Your task to perform on an android device: change the clock display to digital Image 0: 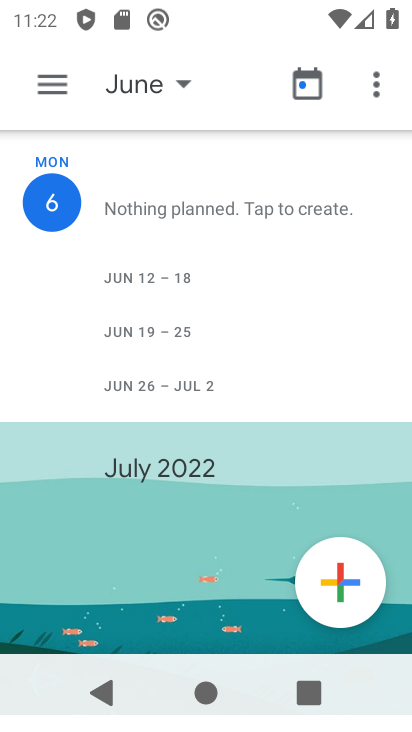
Step 0: press home button
Your task to perform on an android device: change the clock display to digital Image 1: 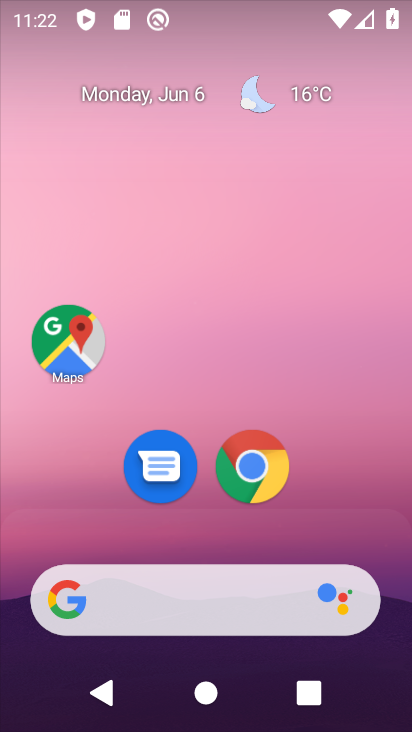
Step 1: drag from (327, 643) to (313, 100)
Your task to perform on an android device: change the clock display to digital Image 2: 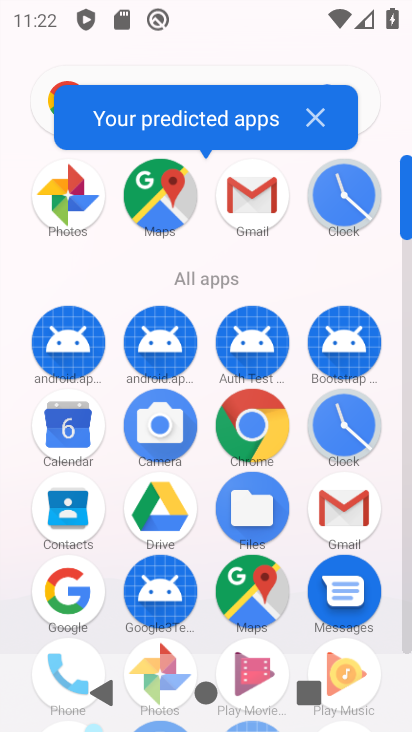
Step 2: click (351, 427)
Your task to perform on an android device: change the clock display to digital Image 3: 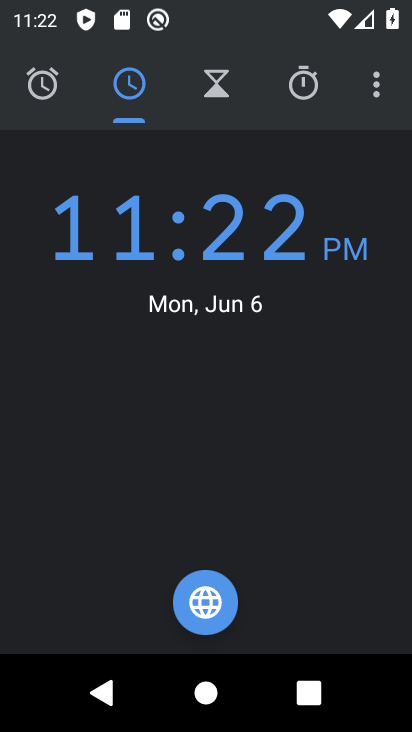
Step 3: click (374, 74)
Your task to perform on an android device: change the clock display to digital Image 4: 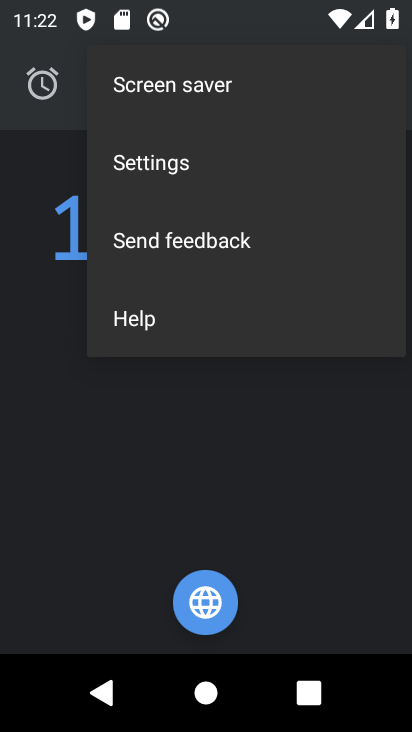
Step 4: click (186, 164)
Your task to perform on an android device: change the clock display to digital Image 5: 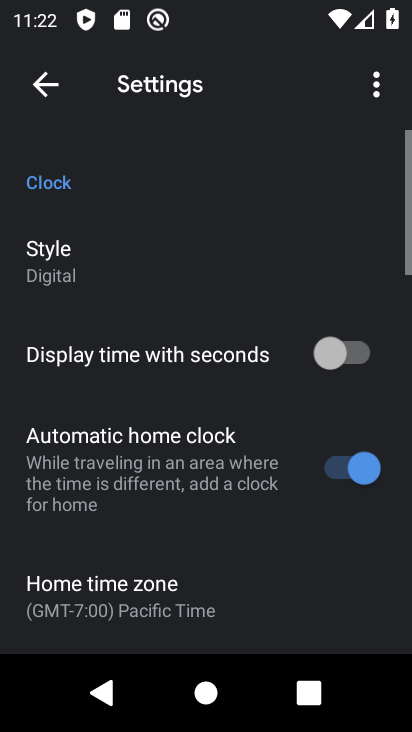
Step 5: click (118, 265)
Your task to perform on an android device: change the clock display to digital Image 6: 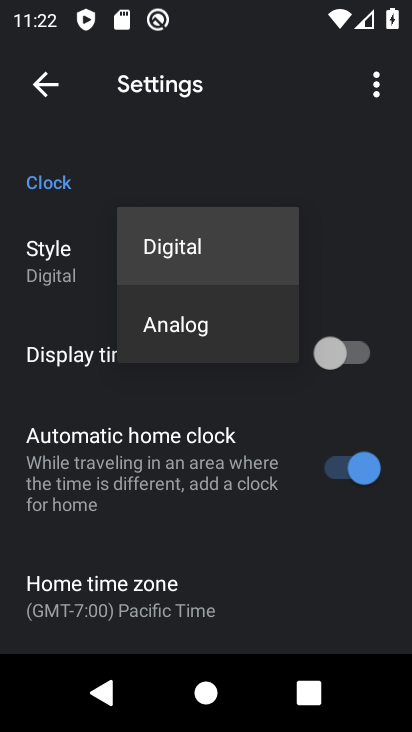
Step 6: click (266, 257)
Your task to perform on an android device: change the clock display to digital Image 7: 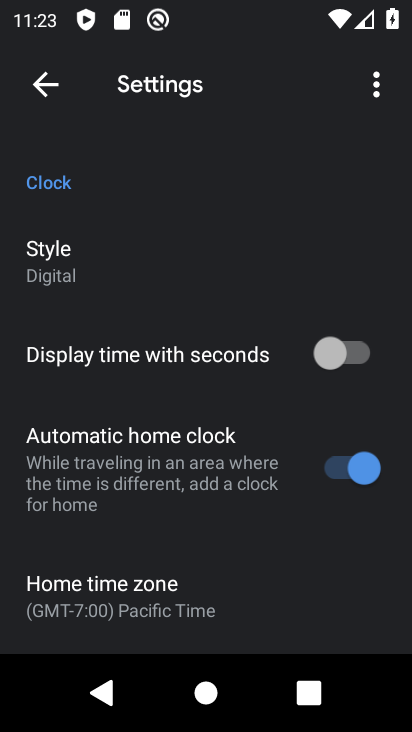
Step 7: task complete